Your task to perform on an android device: open the mobile data screen to see how much data has been used Image 0: 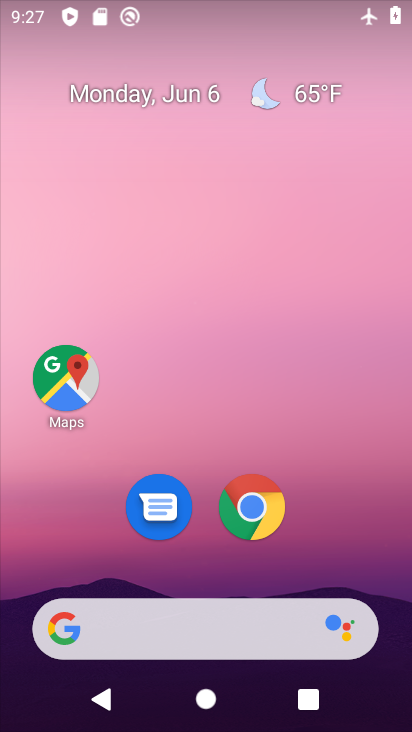
Step 0: drag from (279, 594) to (333, 223)
Your task to perform on an android device: open the mobile data screen to see how much data has been used Image 1: 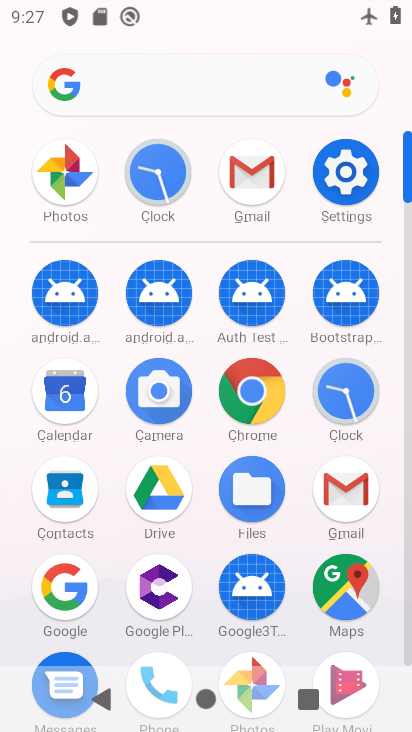
Step 1: click (355, 153)
Your task to perform on an android device: open the mobile data screen to see how much data has been used Image 2: 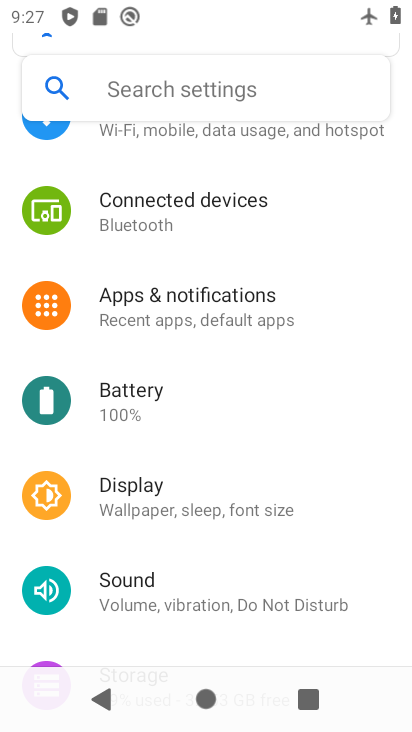
Step 2: drag from (208, 193) to (213, 511)
Your task to perform on an android device: open the mobile data screen to see how much data has been used Image 3: 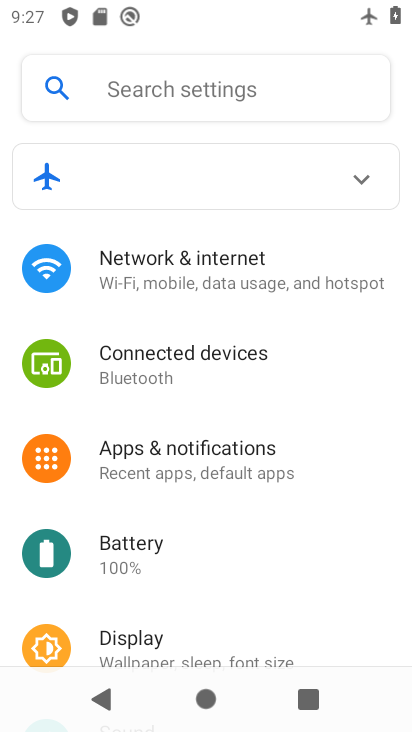
Step 3: click (183, 274)
Your task to perform on an android device: open the mobile data screen to see how much data has been used Image 4: 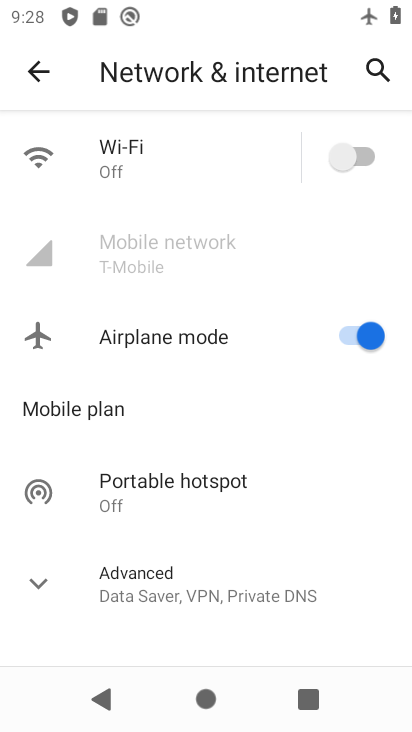
Step 4: task complete